Your task to perform on an android device: Open Yahoo.com Image 0: 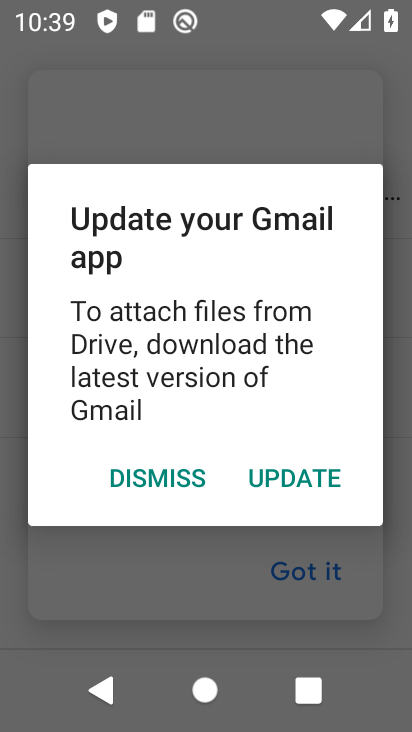
Step 0: press back button
Your task to perform on an android device: Open Yahoo.com Image 1: 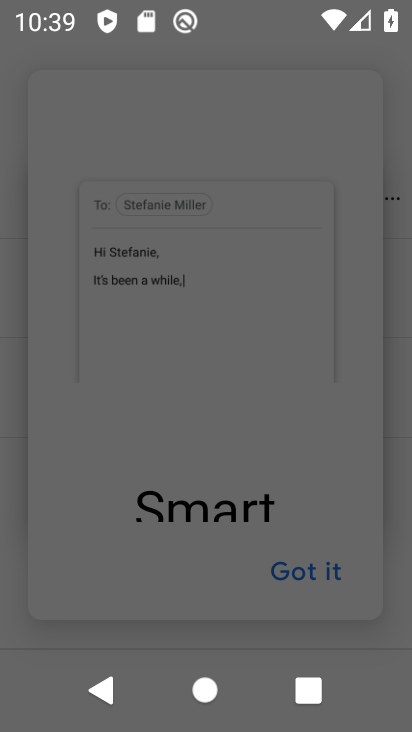
Step 1: press back button
Your task to perform on an android device: Open Yahoo.com Image 2: 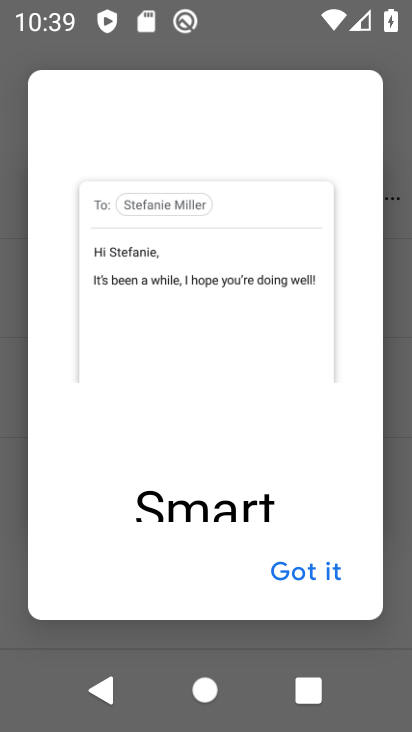
Step 2: press home button
Your task to perform on an android device: Open Yahoo.com Image 3: 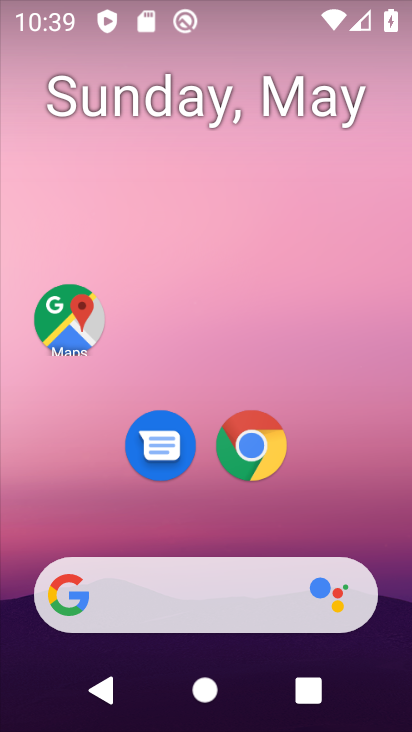
Step 3: click (269, 432)
Your task to perform on an android device: Open Yahoo.com Image 4: 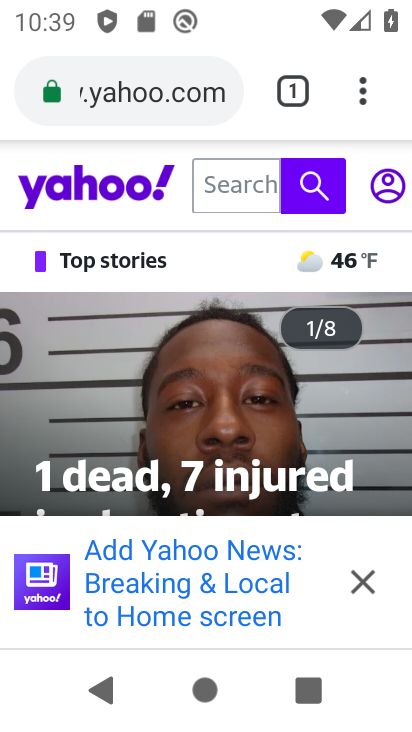
Step 4: task complete